Your task to perform on an android device: open wifi settings Image 0: 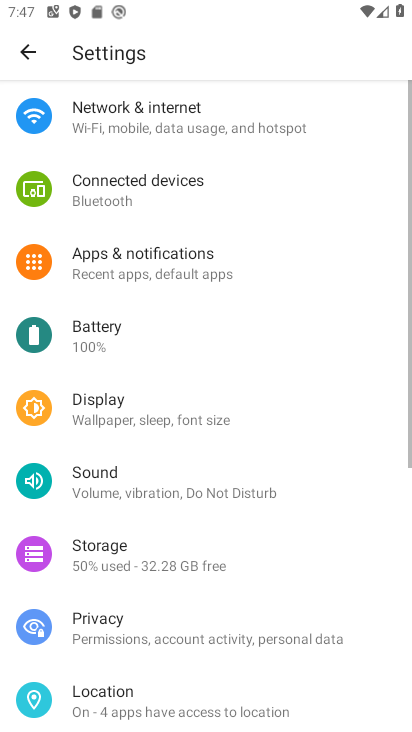
Step 0: click (113, 111)
Your task to perform on an android device: open wifi settings Image 1: 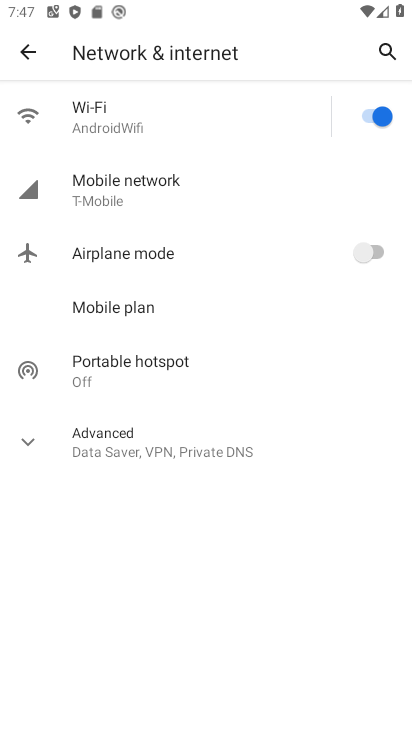
Step 1: click (121, 133)
Your task to perform on an android device: open wifi settings Image 2: 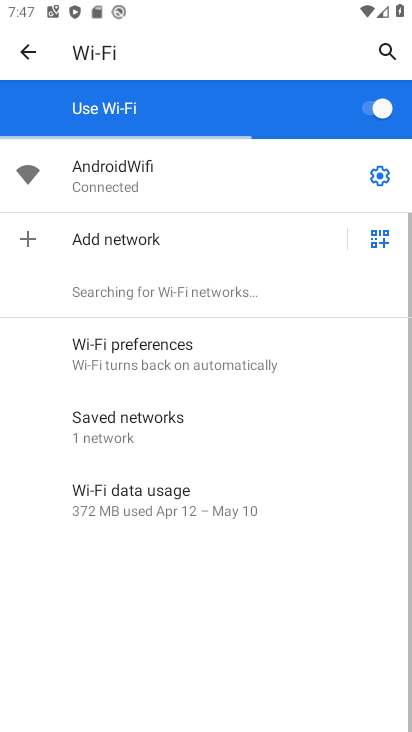
Step 2: task complete